Your task to perform on an android device: toggle wifi Image 0: 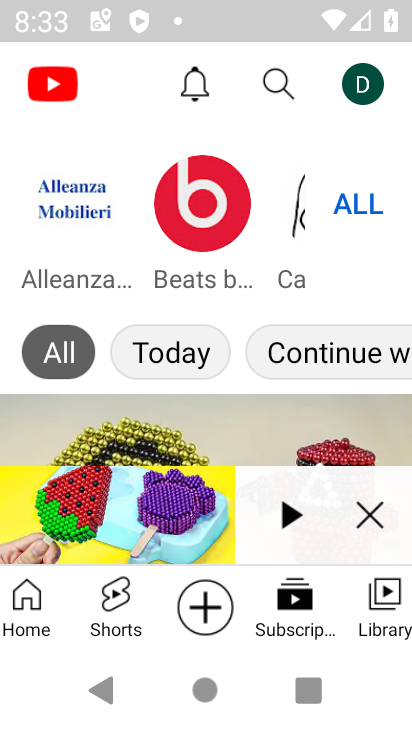
Step 0: press home button
Your task to perform on an android device: toggle wifi Image 1: 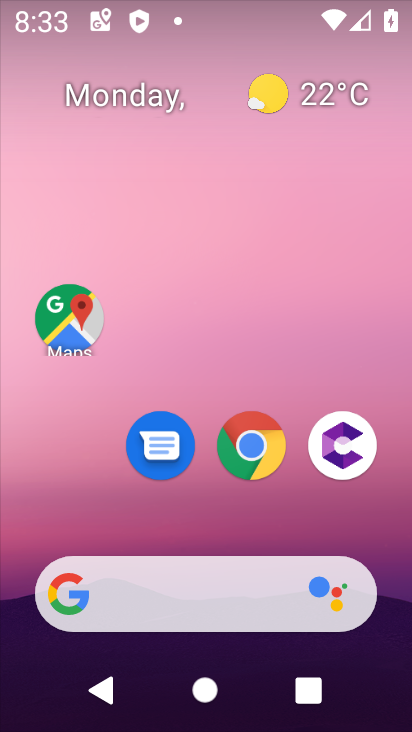
Step 1: drag from (272, 316) to (230, 0)
Your task to perform on an android device: toggle wifi Image 2: 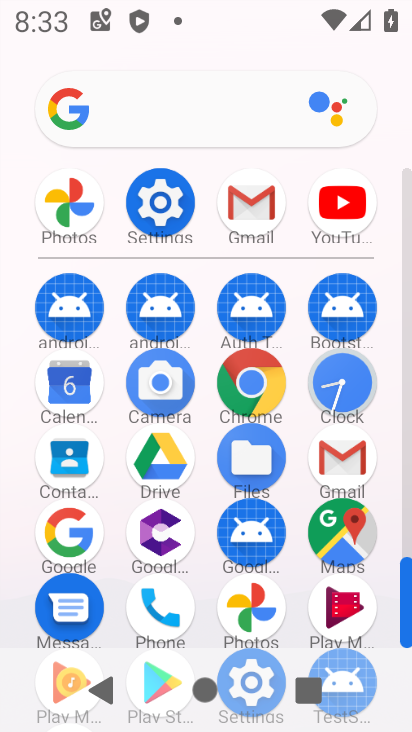
Step 2: click (159, 183)
Your task to perform on an android device: toggle wifi Image 3: 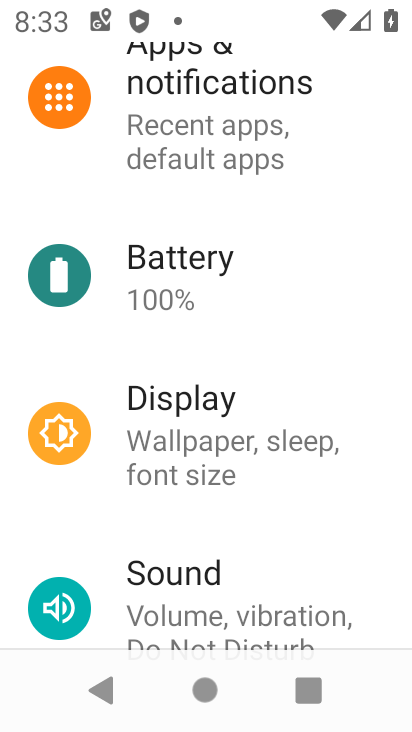
Step 3: drag from (57, 195) to (73, 586)
Your task to perform on an android device: toggle wifi Image 4: 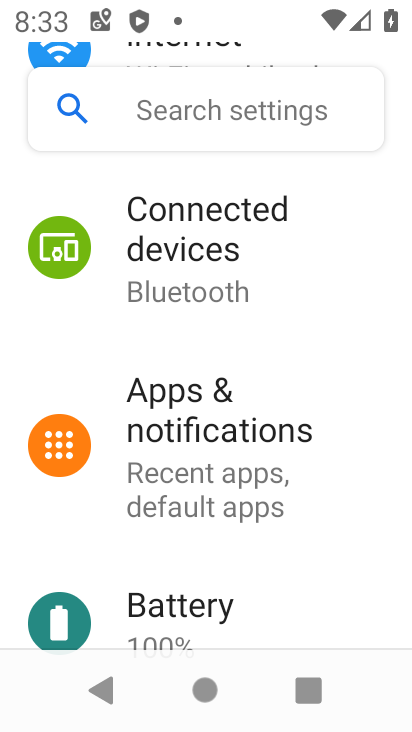
Step 4: drag from (54, 161) to (87, 399)
Your task to perform on an android device: toggle wifi Image 5: 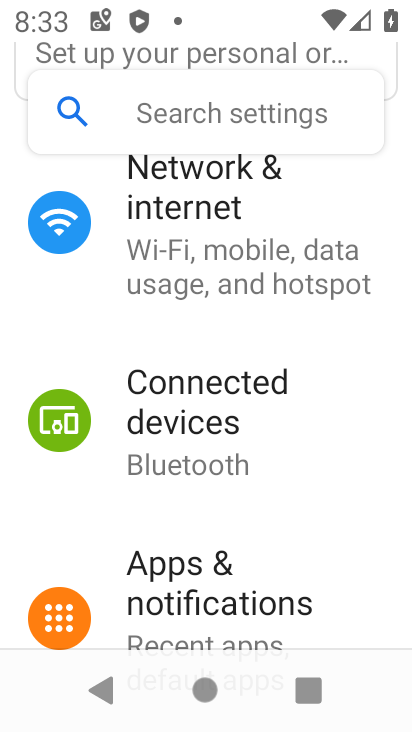
Step 5: click (74, 229)
Your task to perform on an android device: toggle wifi Image 6: 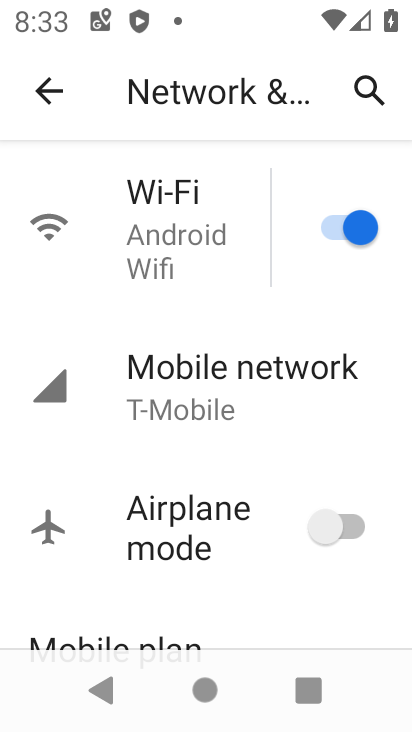
Step 6: click (74, 229)
Your task to perform on an android device: toggle wifi Image 7: 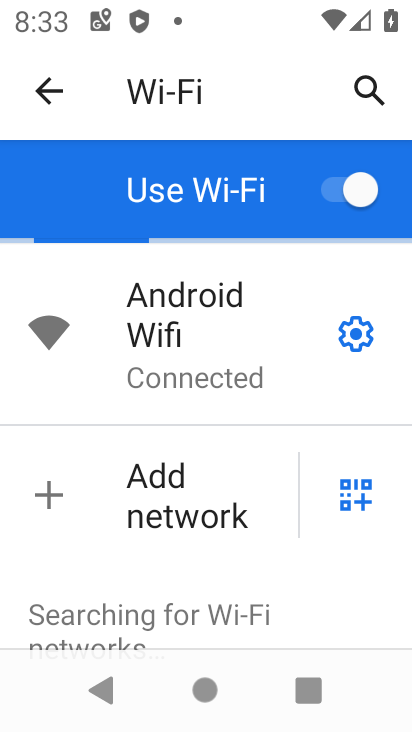
Step 7: click (346, 166)
Your task to perform on an android device: toggle wifi Image 8: 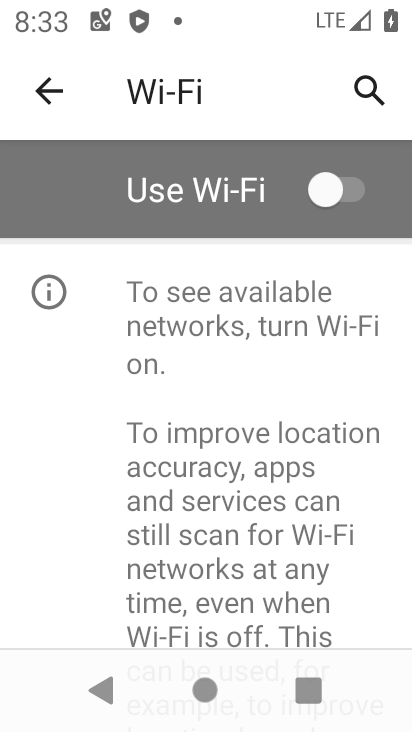
Step 8: task complete